Your task to perform on an android device: change the clock display to digital Image 0: 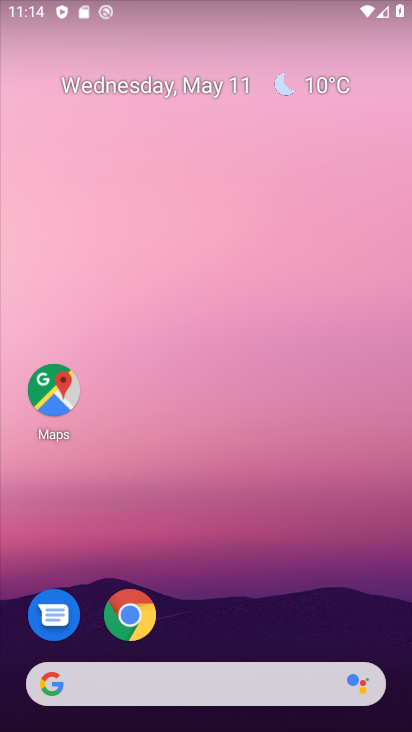
Step 0: drag from (250, 612) to (224, 30)
Your task to perform on an android device: change the clock display to digital Image 1: 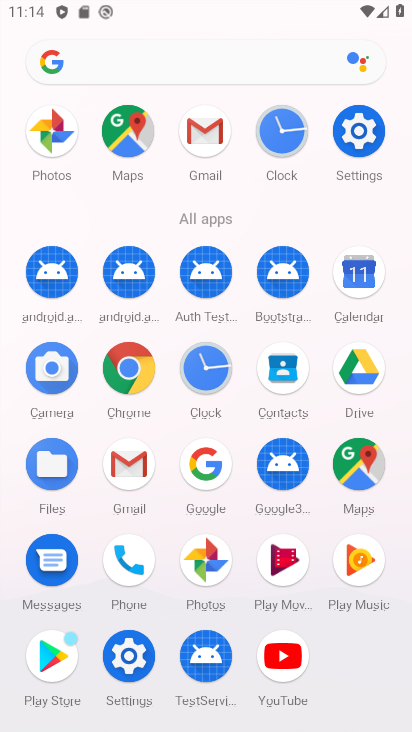
Step 1: click (282, 133)
Your task to perform on an android device: change the clock display to digital Image 2: 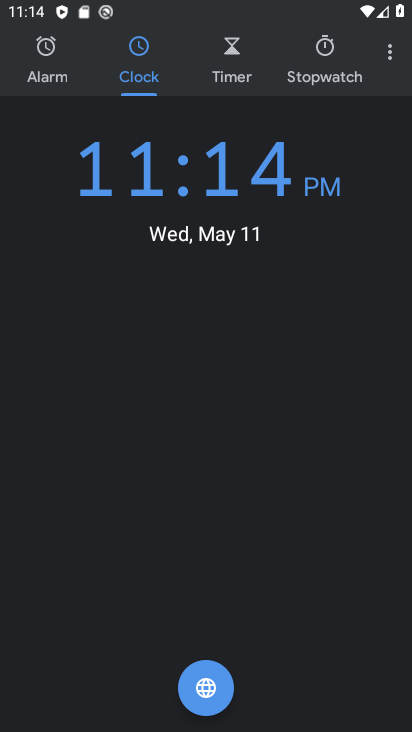
Step 2: click (388, 54)
Your task to perform on an android device: change the clock display to digital Image 3: 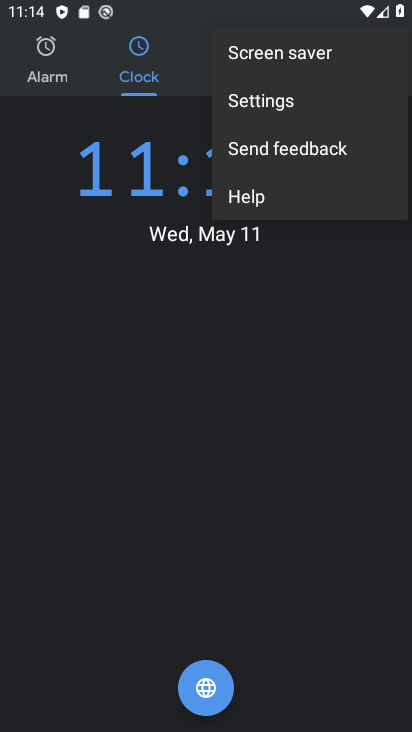
Step 3: click (286, 107)
Your task to perform on an android device: change the clock display to digital Image 4: 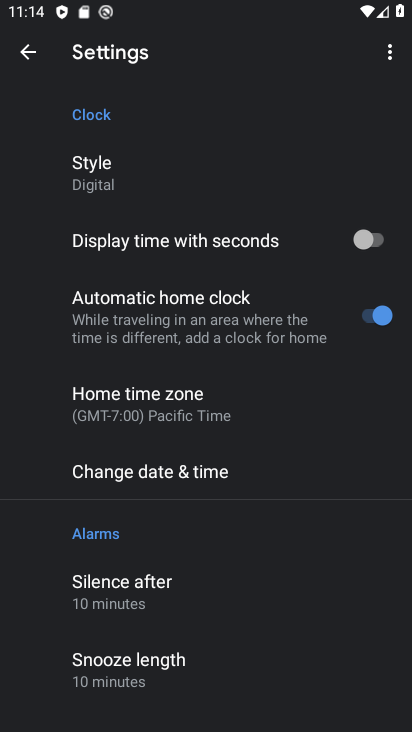
Step 4: click (108, 177)
Your task to perform on an android device: change the clock display to digital Image 5: 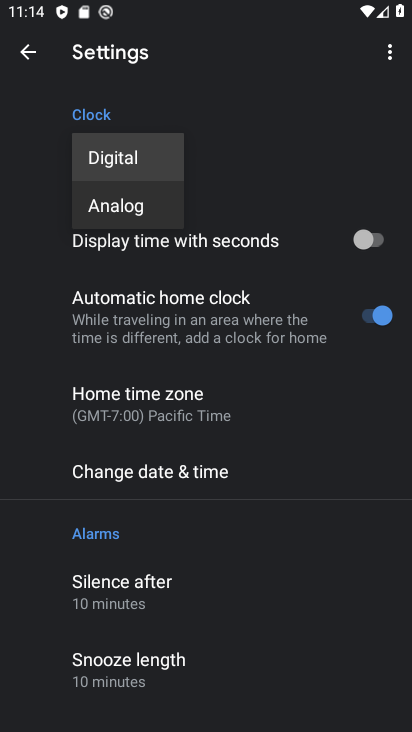
Step 5: click (108, 177)
Your task to perform on an android device: change the clock display to digital Image 6: 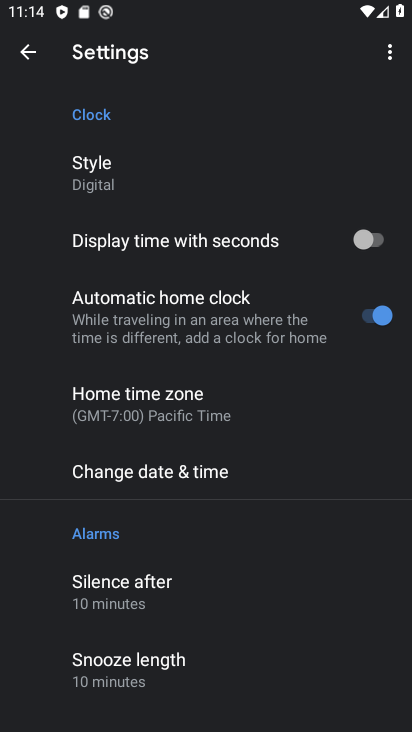
Step 6: task complete